Your task to perform on an android device: turn on translation in the chrome app Image 0: 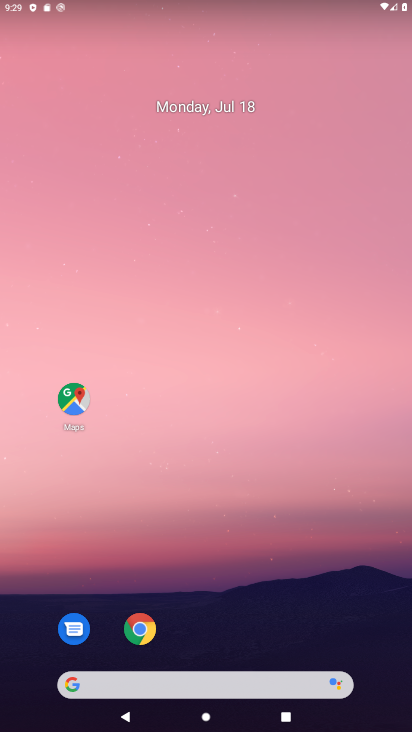
Step 0: click (133, 629)
Your task to perform on an android device: turn on translation in the chrome app Image 1: 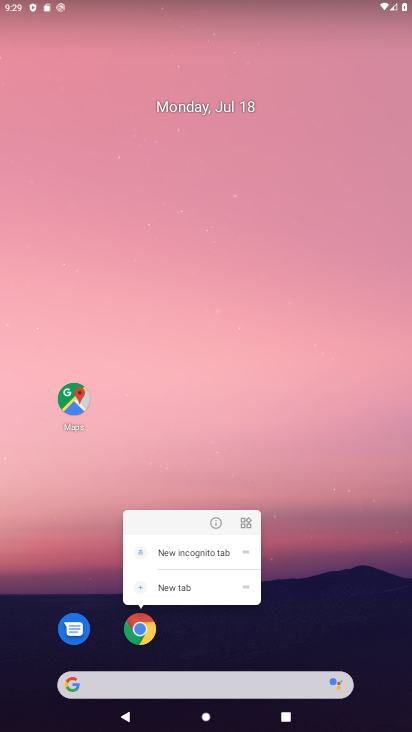
Step 1: click (143, 630)
Your task to perform on an android device: turn on translation in the chrome app Image 2: 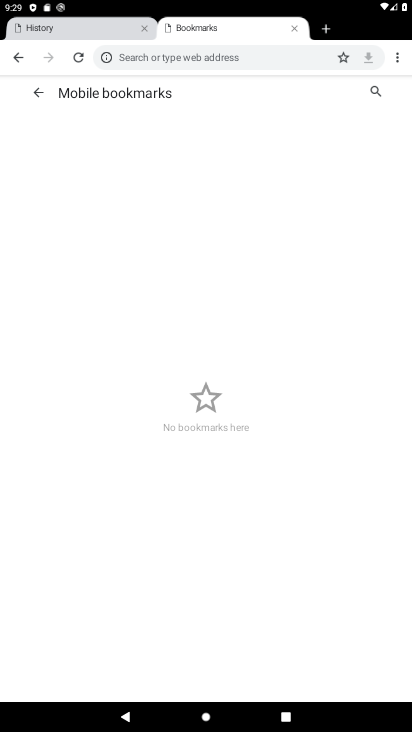
Step 2: drag from (395, 59) to (297, 265)
Your task to perform on an android device: turn on translation in the chrome app Image 3: 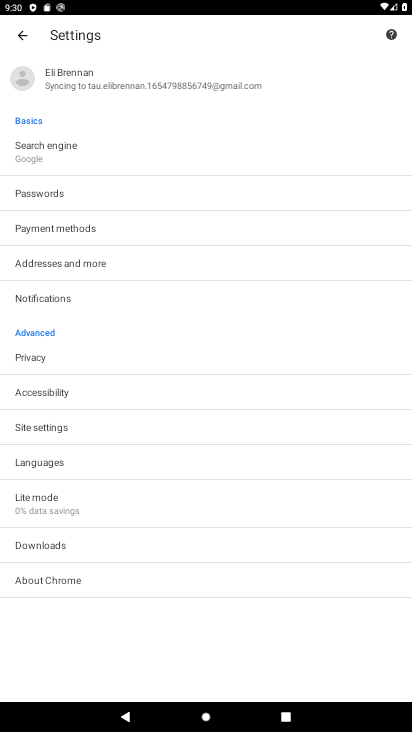
Step 3: click (66, 456)
Your task to perform on an android device: turn on translation in the chrome app Image 4: 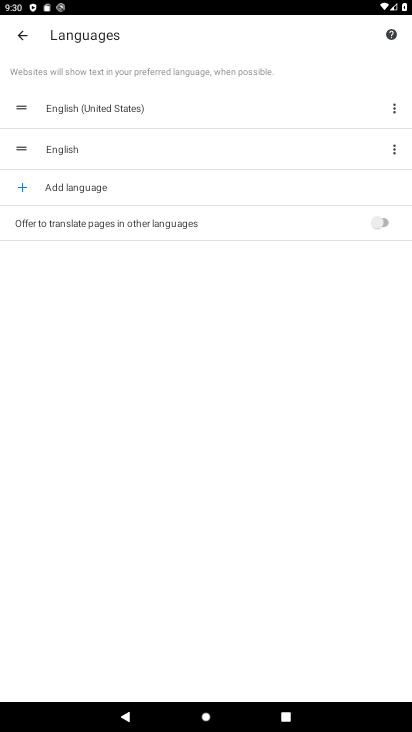
Step 4: click (383, 221)
Your task to perform on an android device: turn on translation in the chrome app Image 5: 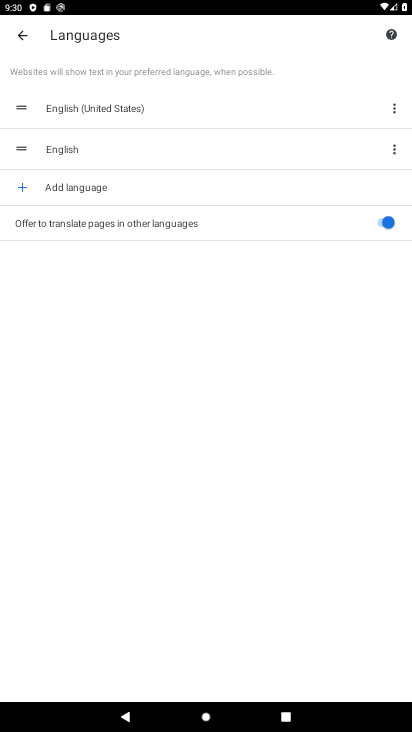
Step 5: task complete